Your task to perform on an android device: What's the weather going to be tomorrow? Image 0: 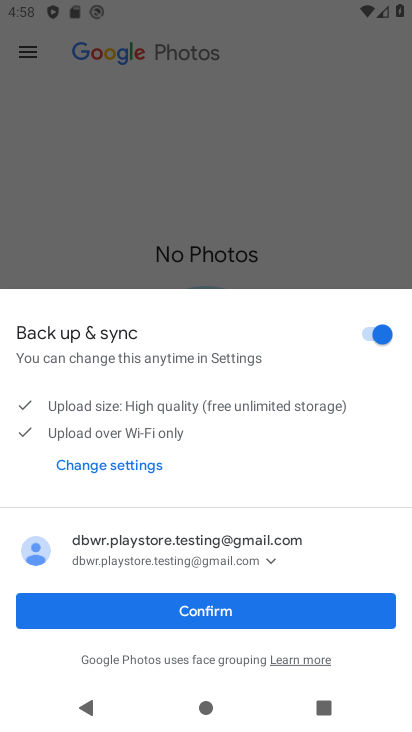
Step 0: press home button
Your task to perform on an android device: What's the weather going to be tomorrow? Image 1: 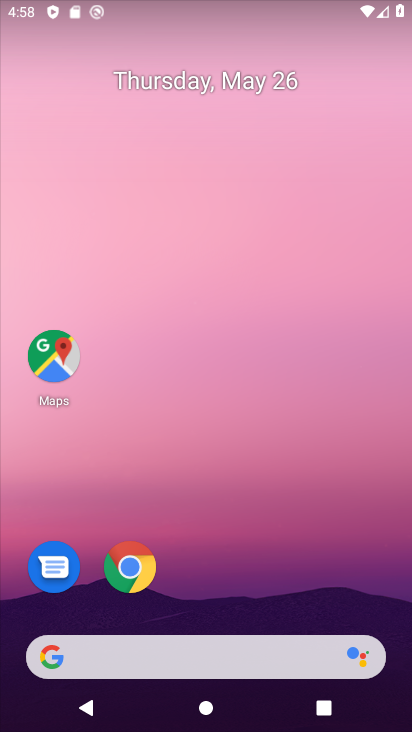
Step 1: click (45, 663)
Your task to perform on an android device: What's the weather going to be tomorrow? Image 2: 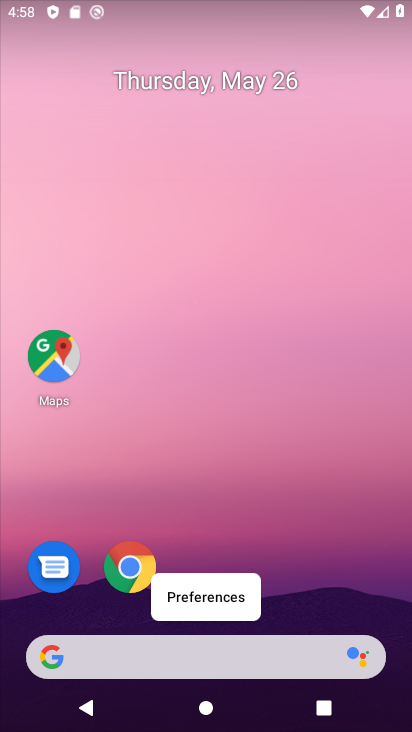
Step 2: click (45, 663)
Your task to perform on an android device: What's the weather going to be tomorrow? Image 3: 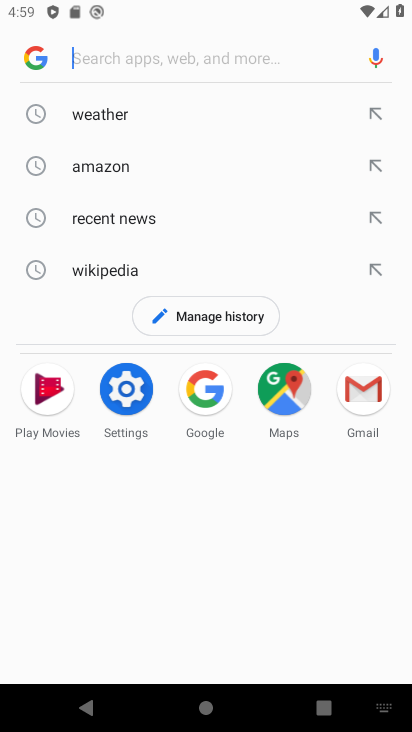
Step 3: type "weather going to be tomorrow?"
Your task to perform on an android device: What's the weather going to be tomorrow? Image 4: 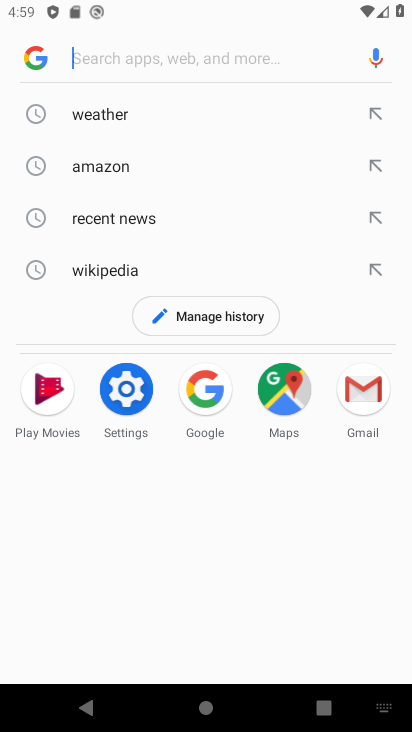
Step 4: click (152, 67)
Your task to perform on an android device: What's the weather going to be tomorrow? Image 5: 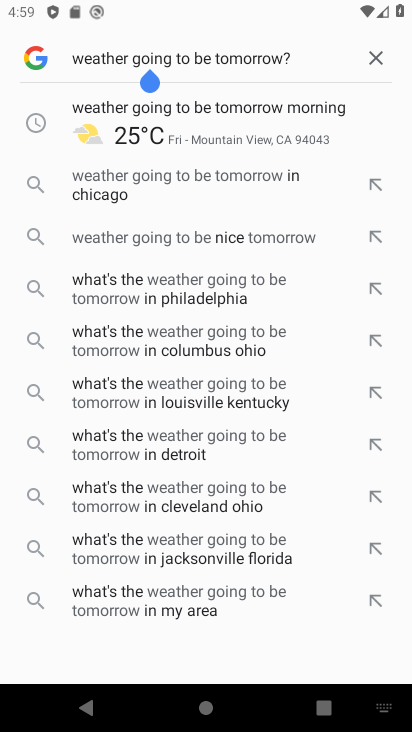
Step 5: click (116, 63)
Your task to perform on an android device: What's the weather going to be tomorrow? Image 6: 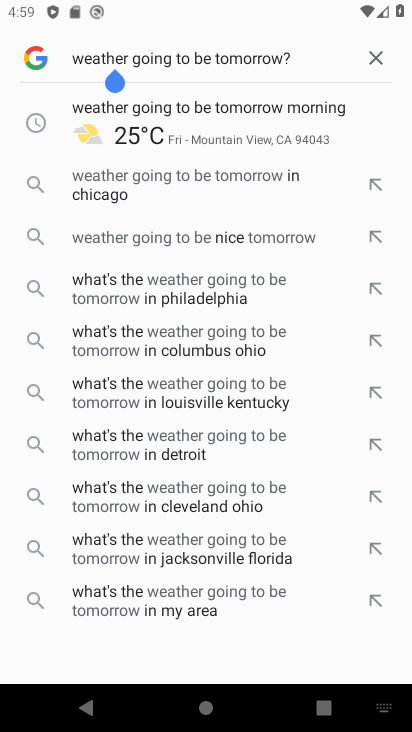
Step 6: click (152, 116)
Your task to perform on an android device: What's the weather going to be tomorrow? Image 7: 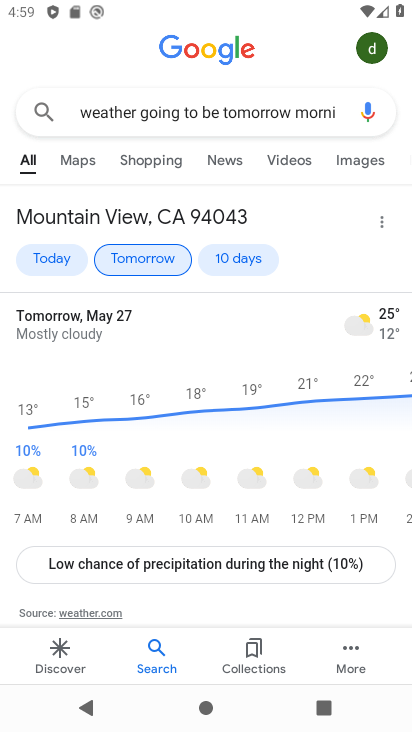
Step 7: task complete